Your task to perform on an android device: Go to Yahoo.com Image 0: 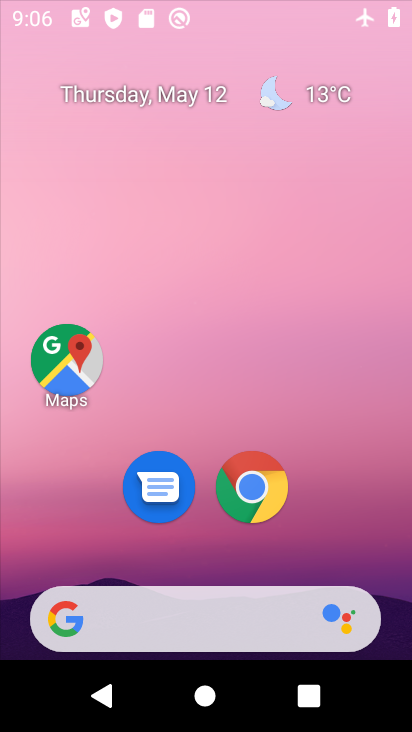
Step 0: click (349, 19)
Your task to perform on an android device: Go to Yahoo.com Image 1: 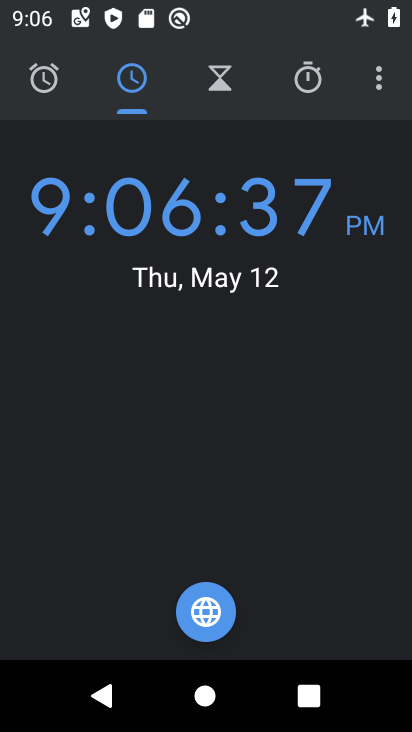
Step 1: press home button
Your task to perform on an android device: Go to Yahoo.com Image 2: 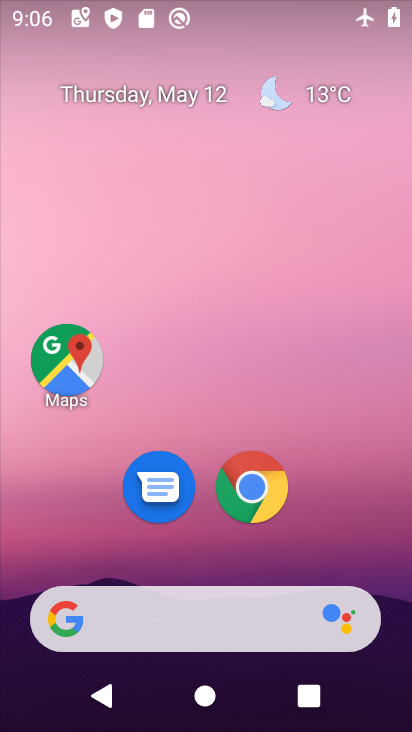
Step 2: click (243, 499)
Your task to perform on an android device: Go to Yahoo.com Image 3: 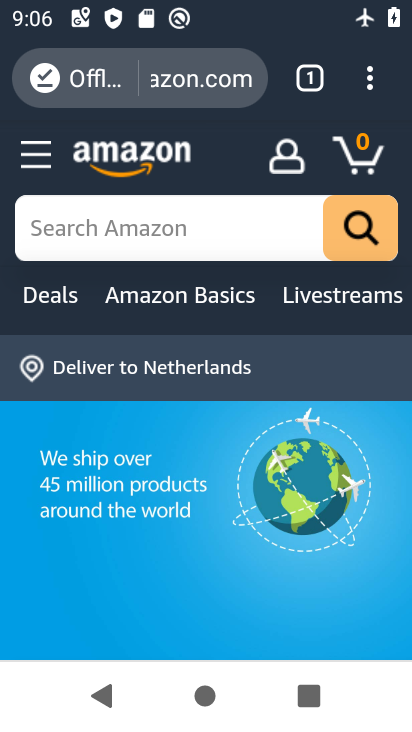
Step 3: click (137, 93)
Your task to perform on an android device: Go to Yahoo.com Image 4: 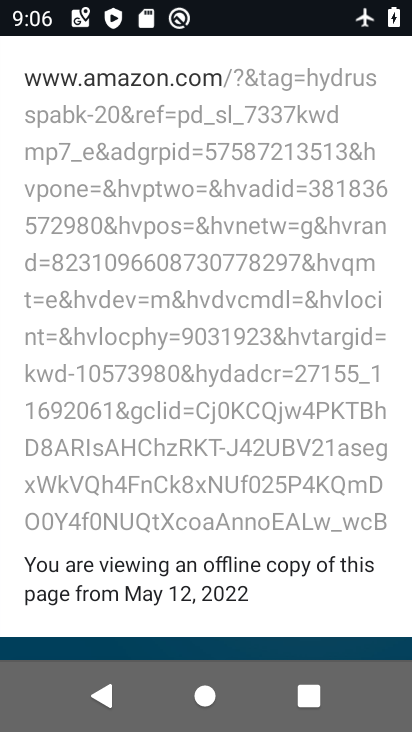
Step 4: press back button
Your task to perform on an android device: Go to Yahoo.com Image 5: 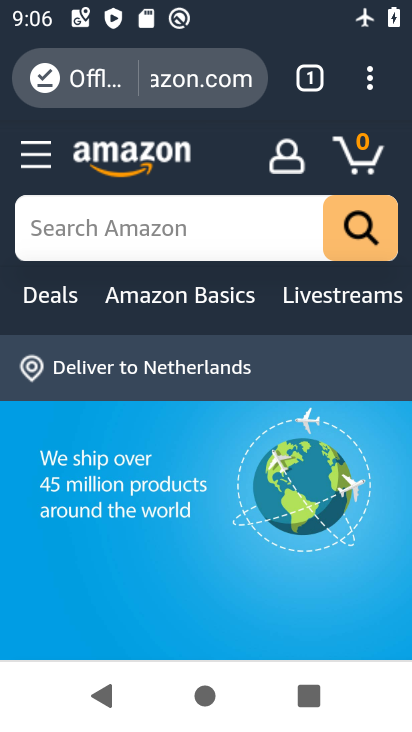
Step 5: click (206, 85)
Your task to perform on an android device: Go to Yahoo.com Image 6: 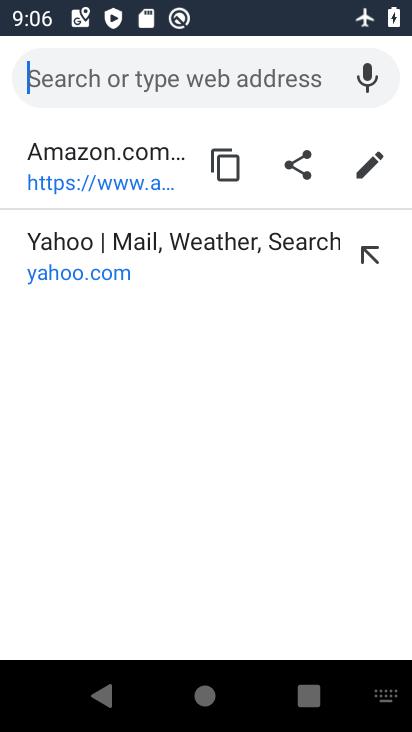
Step 6: click (51, 260)
Your task to perform on an android device: Go to Yahoo.com Image 7: 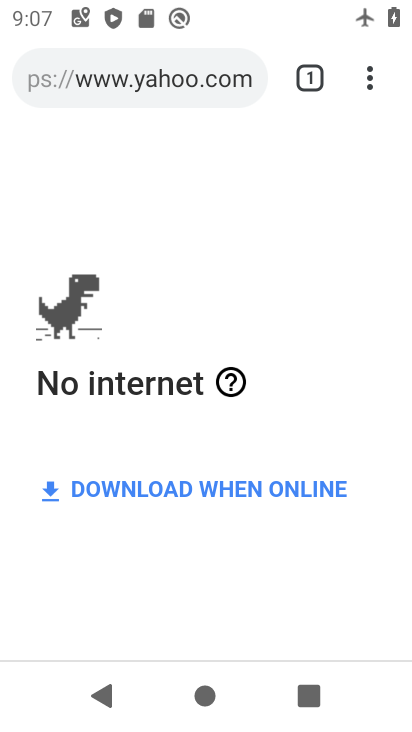
Step 7: task complete